Your task to perform on an android device: Play the last video I watched on Youtube Image 0: 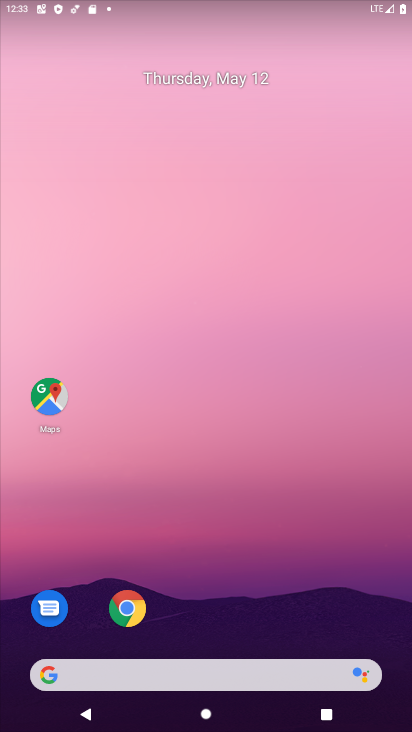
Step 0: drag from (294, 543) to (183, 0)
Your task to perform on an android device: Play the last video I watched on Youtube Image 1: 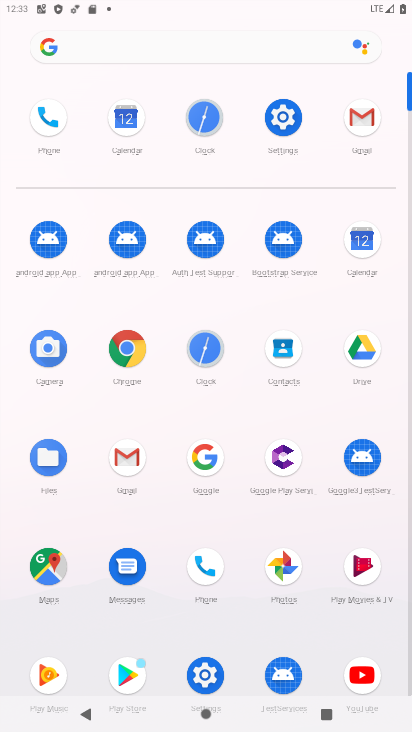
Step 1: click (362, 675)
Your task to perform on an android device: Play the last video I watched on Youtube Image 2: 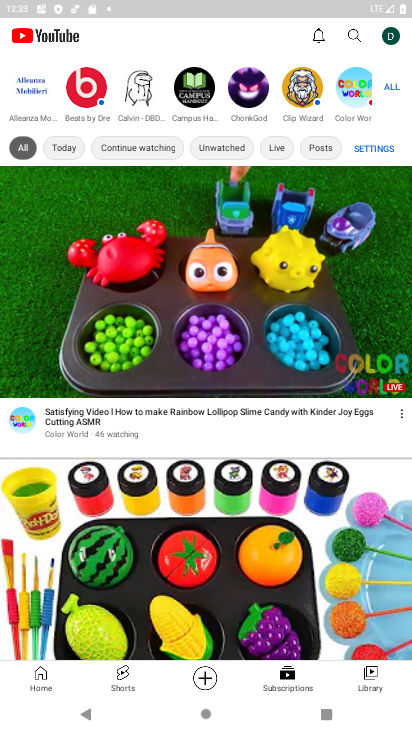
Step 2: click (362, 678)
Your task to perform on an android device: Play the last video I watched on Youtube Image 3: 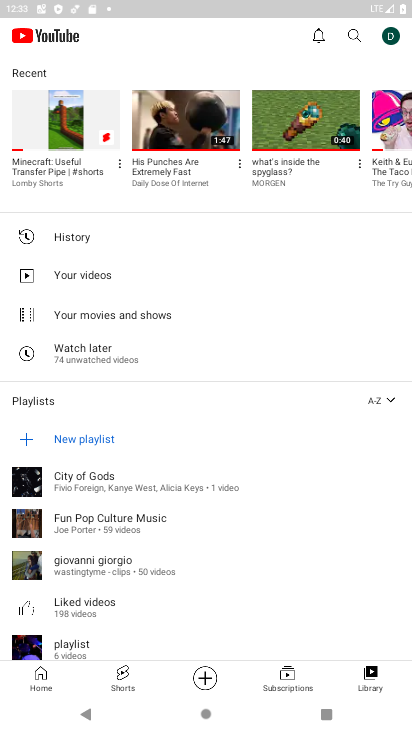
Step 3: click (72, 236)
Your task to perform on an android device: Play the last video I watched on Youtube Image 4: 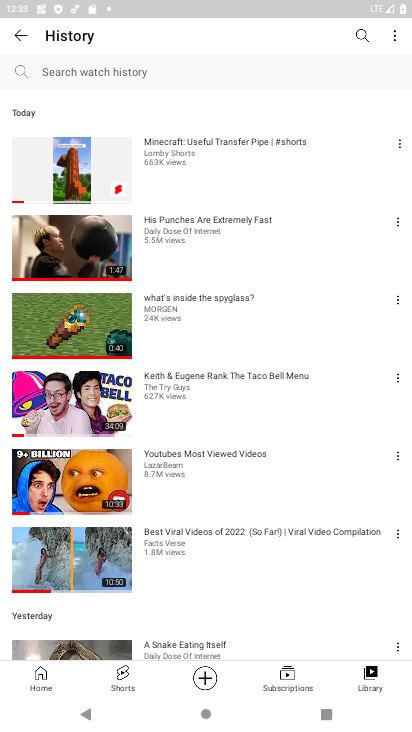
Step 4: click (63, 159)
Your task to perform on an android device: Play the last video I watched on Youtube Image 5: 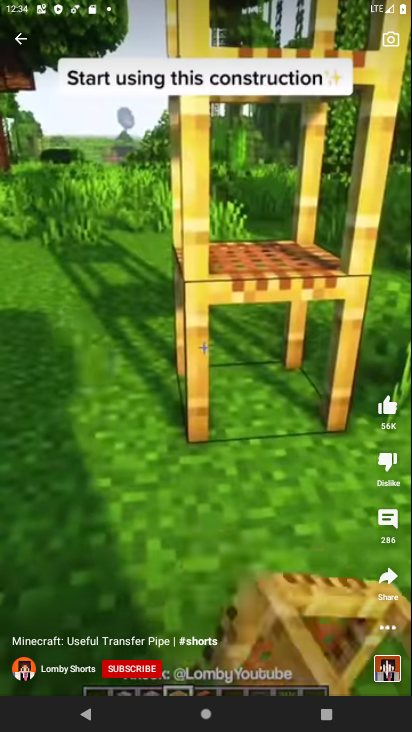
Step 5: click (249, 395)
Your task to perform on an android device: Play the last video I watched on Youtube Image 6: 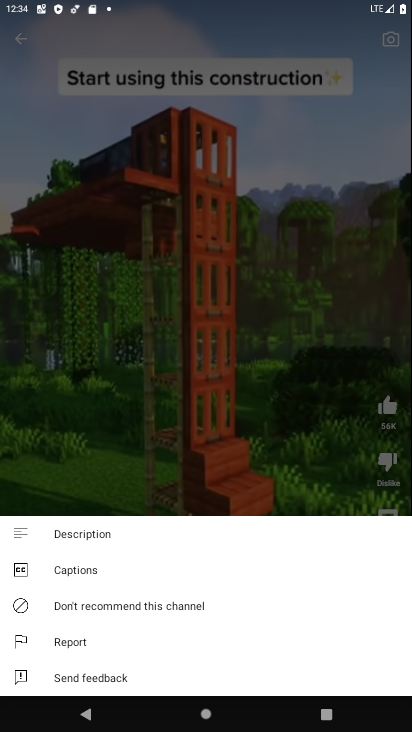
Step 6: click (204, 335)
Your task to perform on an android device: Play the last video I watched on Youtube Image 7: 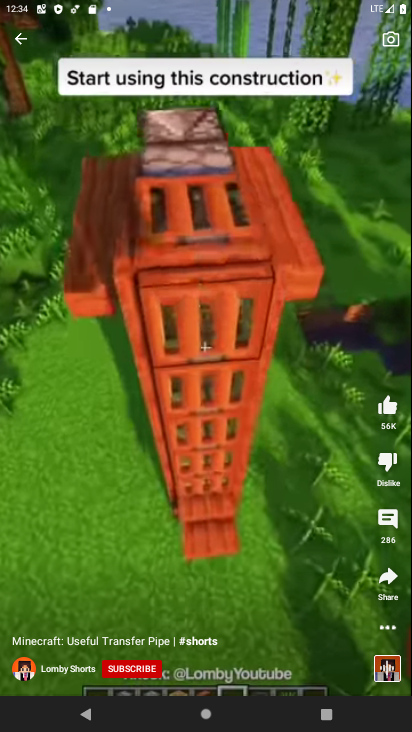
Step 7: task complete